Your task to perform on an android device: Open calendar and show me the first week of next month Image 0: 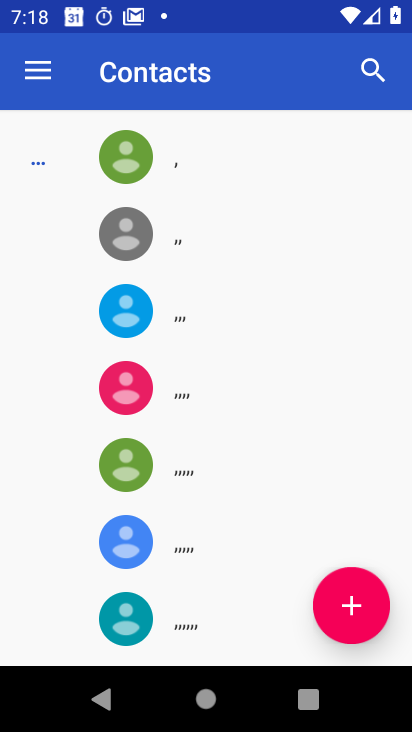
Step 0: press home button
Your task to perform on an android device: Open calendar and show me the first week of next month Image 1: 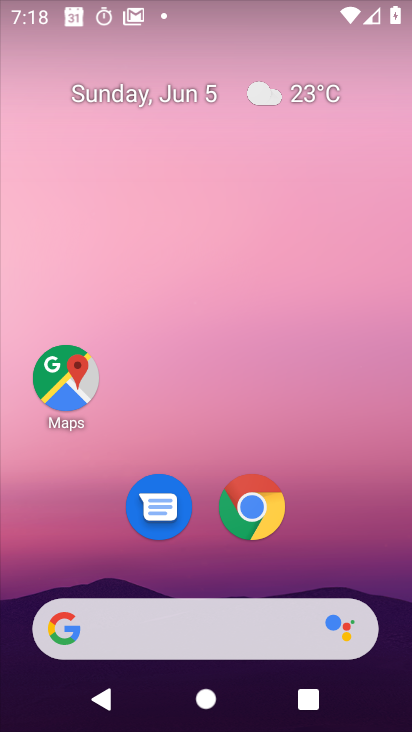
Step 1: drag from (220, 665) to (281, 251)
Your task to perform on an android device: Open calendar and show me the first week of next month Image 2: 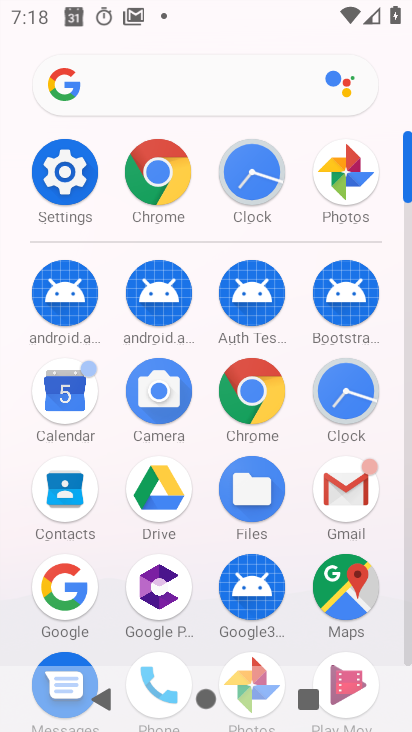
Step 2: click (62, 390)
Your task to perform on an android device: Open calendar and show me the first week of next month Image 3: 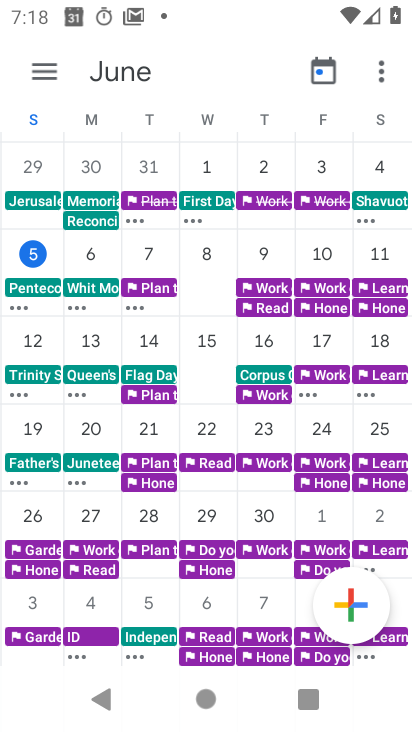
Step 3: drag from (387, 406) to (2, 458)
Your task to perform on an android device: Open calendar and show me the first week of next month Image 4: 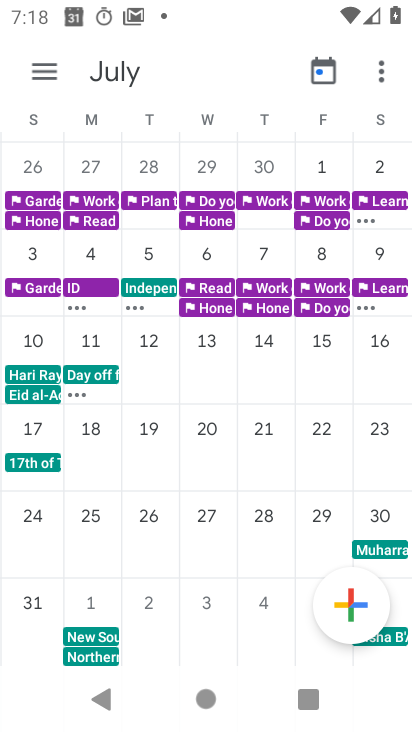
Step 4: click (76, 249)
Your task to perform on an android device: Open calendar and show me the first week of next month Image 5: 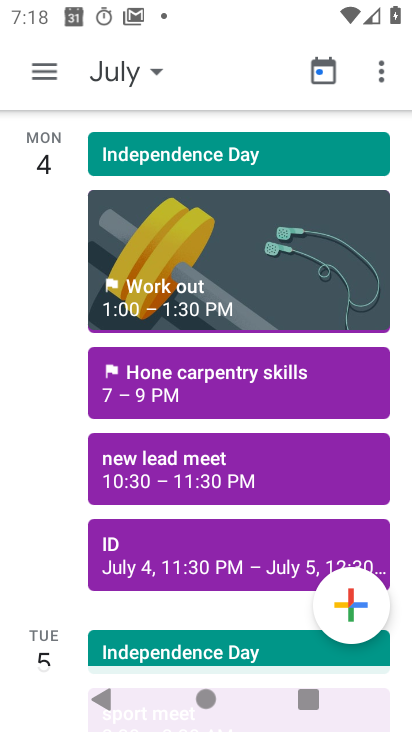
Step 5: task complete